Your task to perform on an android device: turn on notifications settings in the gmail app Image 0: 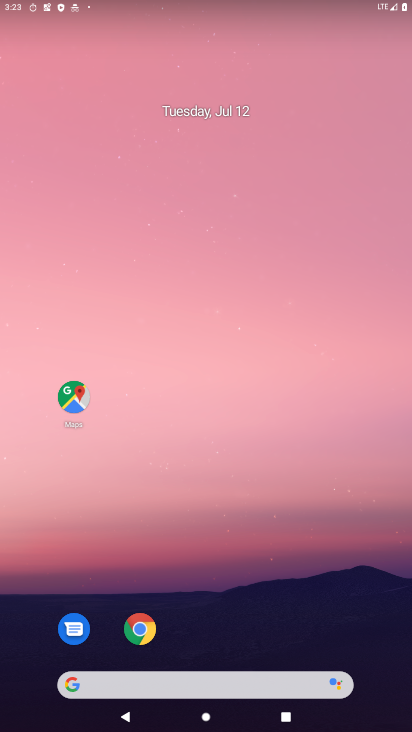
Step 0: drag from (327, 627) to (336, 91)
Your task to perform on an android device: turn on notifications settings in the gmail app Image 1: 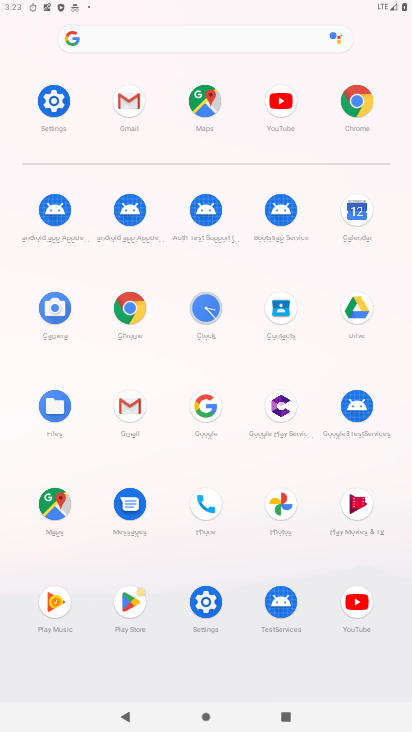
Step 1: click (124, 409)
Your task to perform on an android device: turn on notifications settings in the gmail app Image 2: 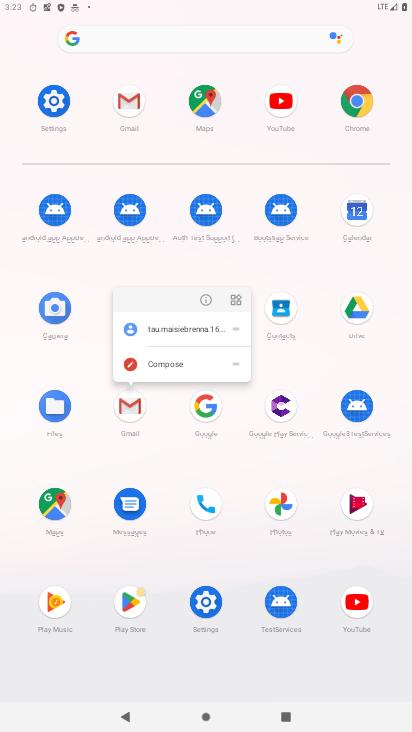
Step 2: click (205, 293)
Your task to perform on an android device: turn on notifications settings in the gmail app Image 3: 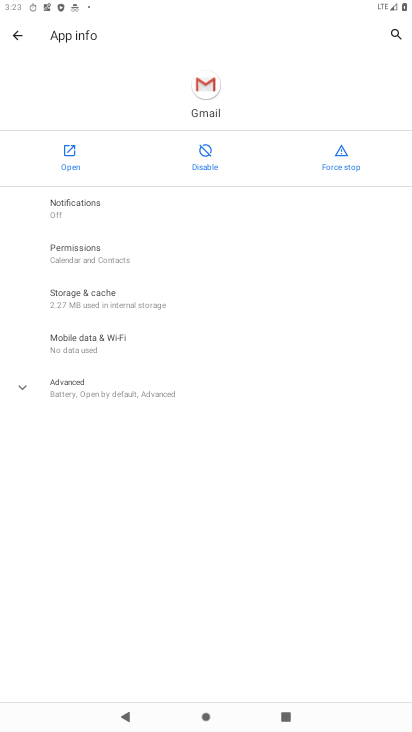
Step 3: click (56, 197)
Your task to perform on an android device: turn on notifications settings in the gmail app Image 4: 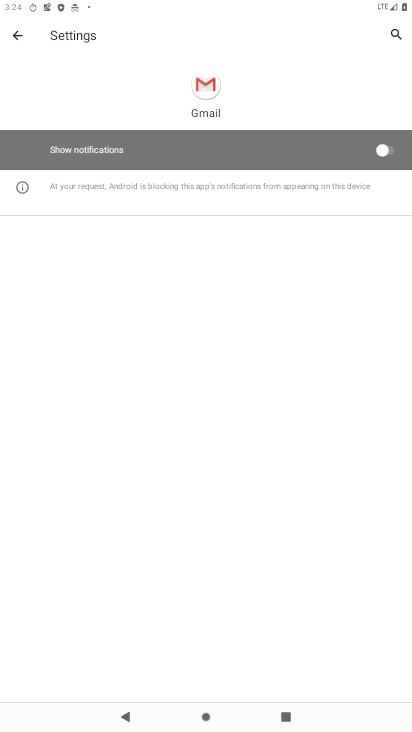
Step 4: click (387, 149)
Your task to perform on an android device: turn on notifications settings in the gmail app Image 5: 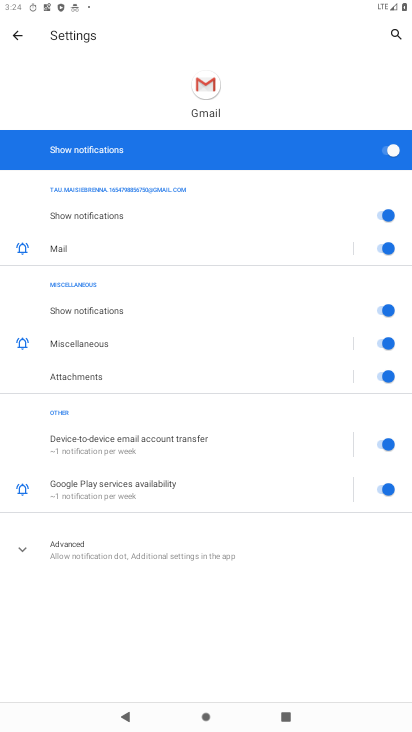
Step 5: task complete